Your task to perform on an android device: Check the news Image 0: 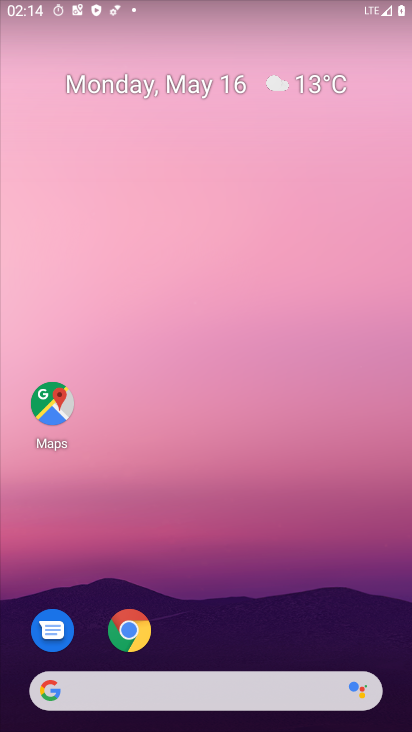
Step 0: drag from (372, 597) to (306, 0)
Your task to perform on an android device: Check the news Image 1: 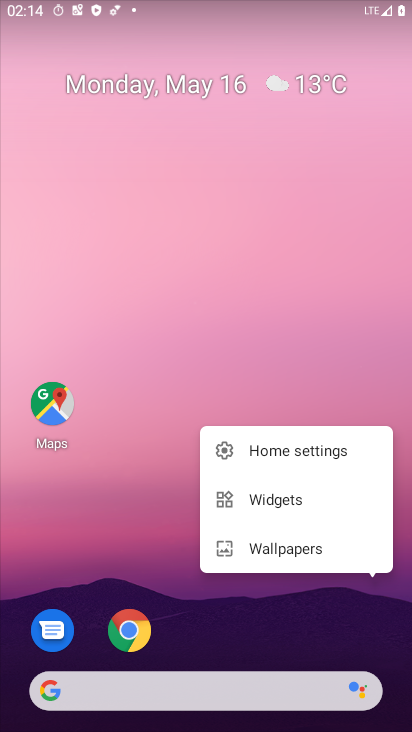
Step 1: drag from (213, 610) to (205, 253)
Your task to perform on an android device: Check the news Image 2: 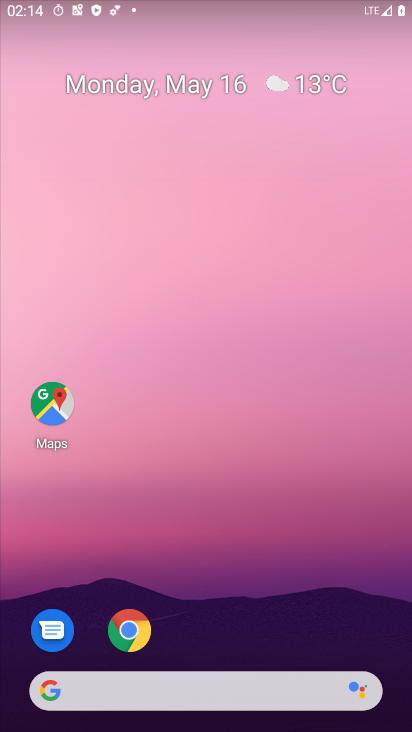
Step 2: drag from (358, 607) to (346, 129)
Your task to perform on an android device: Check the news Image 3: 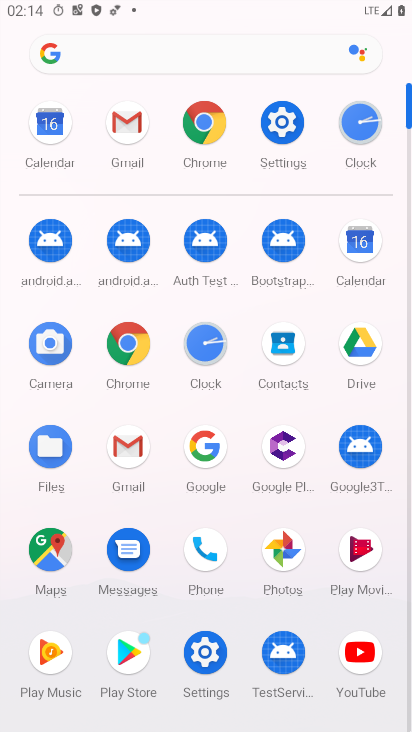
Step 3: click (205, 135)
Your task to perform on an android device: Check the news Image 4: 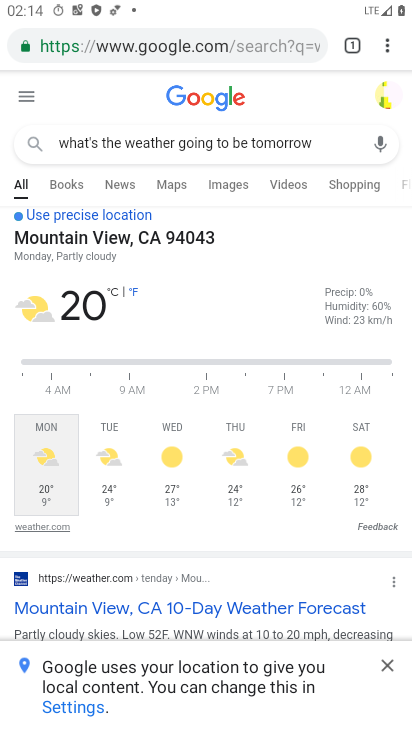
Step 4: click (220, 40)
Your task to perform on an android device: Check the news Image 5: 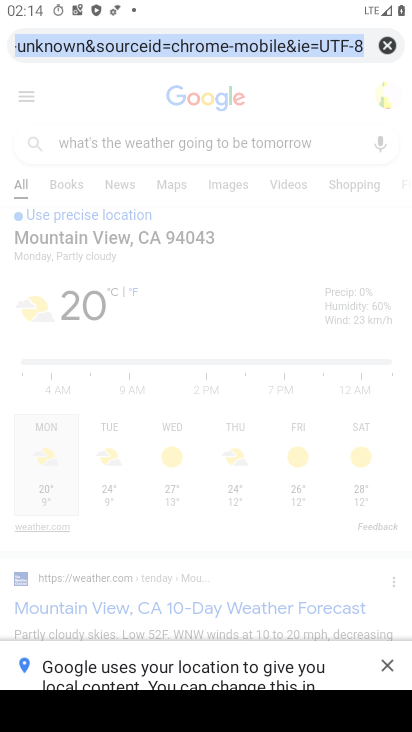
Step 5: click (386, 44)
Your task to perform on an android device: Check the news Image 6: 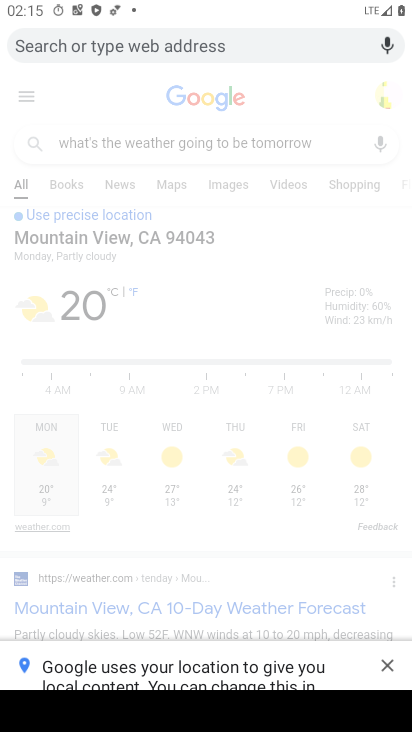
Step 6: type "check the news"
Your task to perform on an android device: Check the news Image 7: 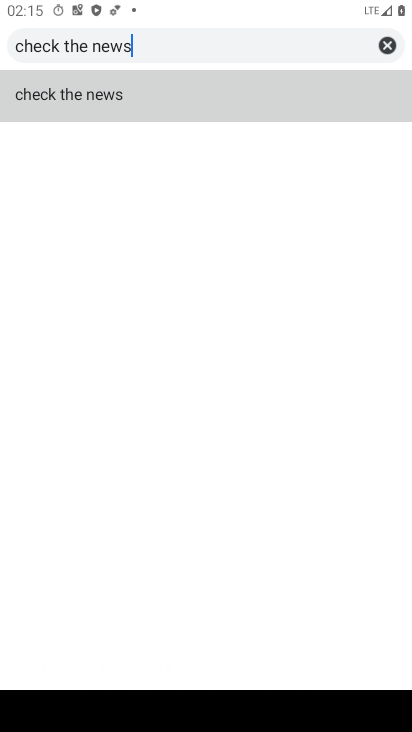
Step 7: click (77, 99)
Your task to perform on an android device: Check the news Image 8: 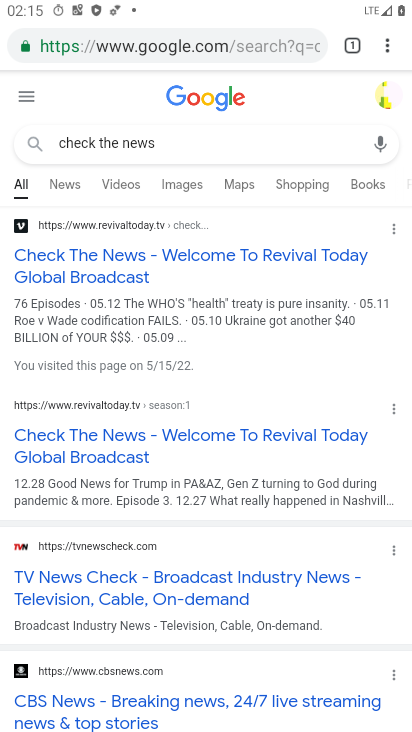
Step 8: click (189, 258)
Your task to perform on an android device: Check the news Image 9: 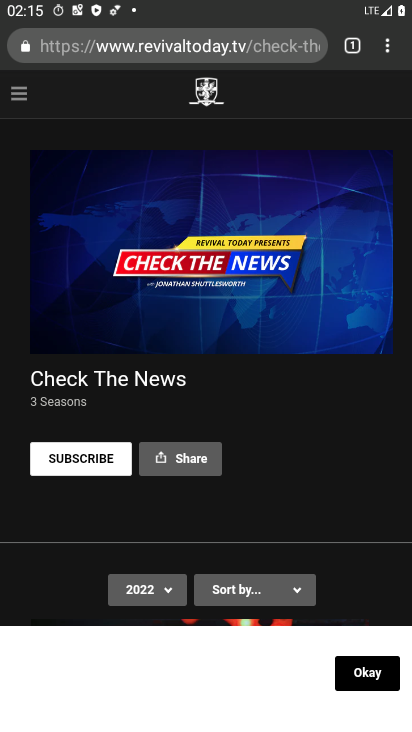
Step 9: task complete